Your task to perform on an android device: turn notification dots on Image 0: 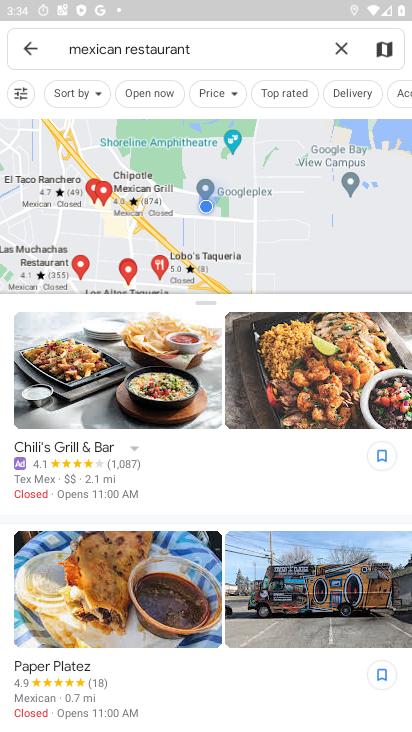
Step 0: task complete